Your task to perform on an android device: Show me popular videos on Youtube Image 0: 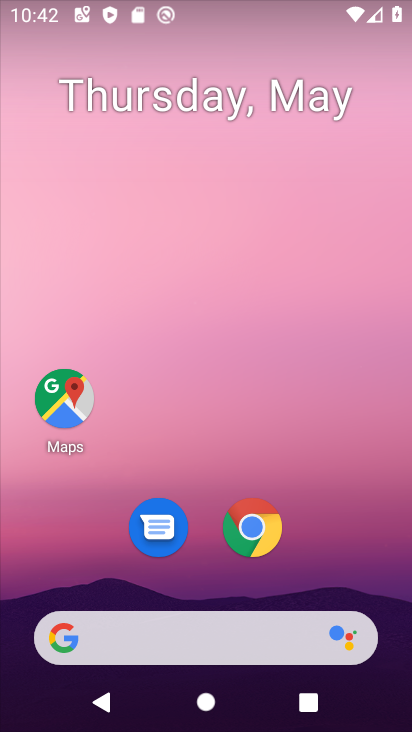
Step 0: drag from (324, 571) to (327, 146)
Your task to perform on an android device: Show me popular videos on Youtube Image 1: 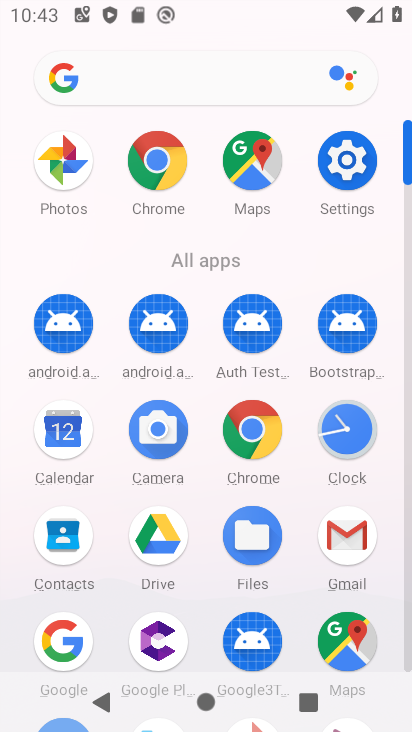
Step 1: drag from (202, 592) to (266, 155)
Your task to perform on an android device: Show me popular videos on Youtube Image 2: 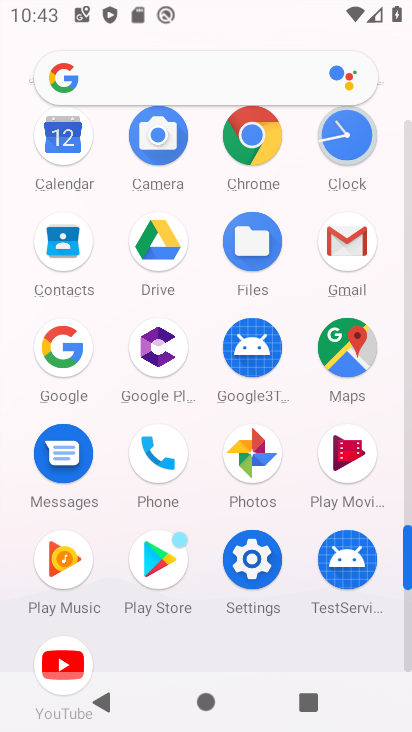
Step 2: click (75, 656)
Your task to perform on an android device: Show me popular videos on Youtube Image 3: 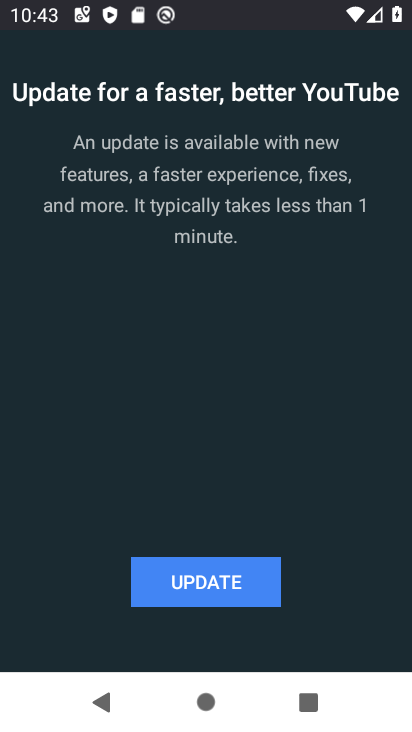
Step 3: click (177, 594)
Your task to perform on an android device: Show me popular videos on Youtube Image 4: 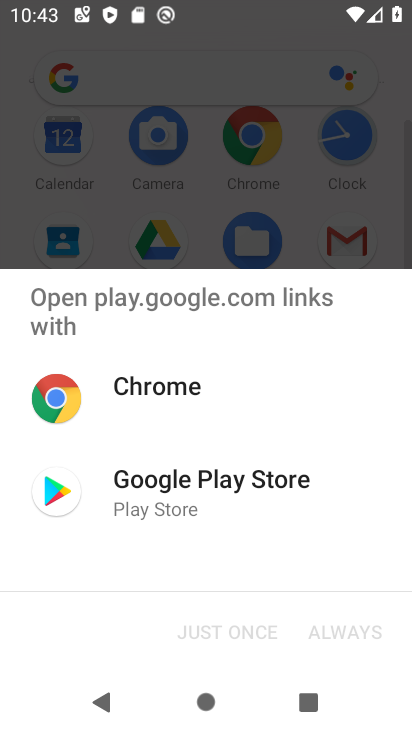
Step 4: click (179, 488)
Your task to perform on an android device: Show me popular videos on Youtube Image 5: 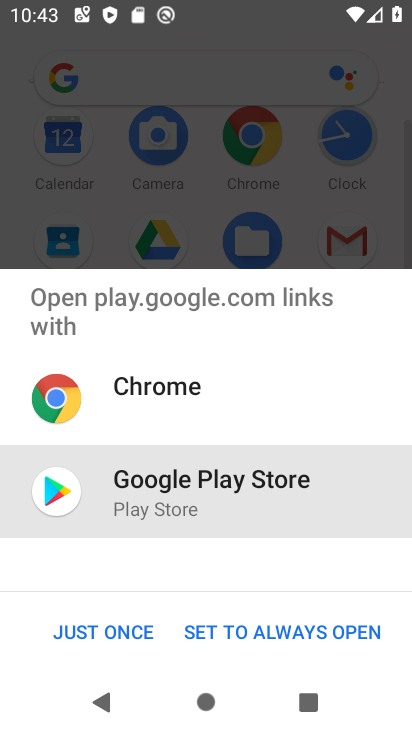
Step 5: click (126, 626)
Your task to perform on an android device: Show me popular videos on Youtube Image 6: 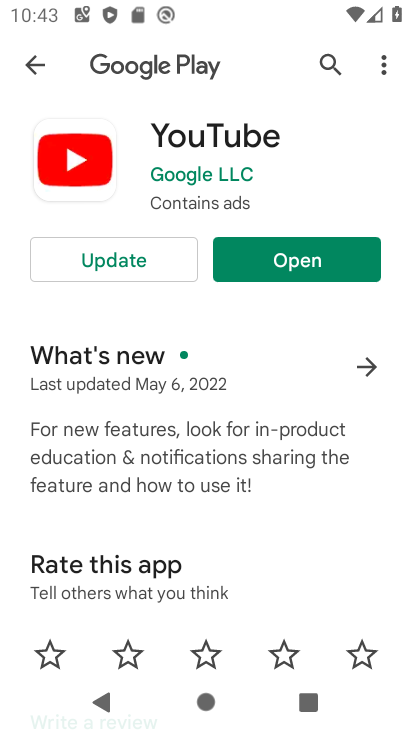
Step 6: click (162, 255)
Your task to perform on an android device: Show me popular videos on Youtube Image 7: 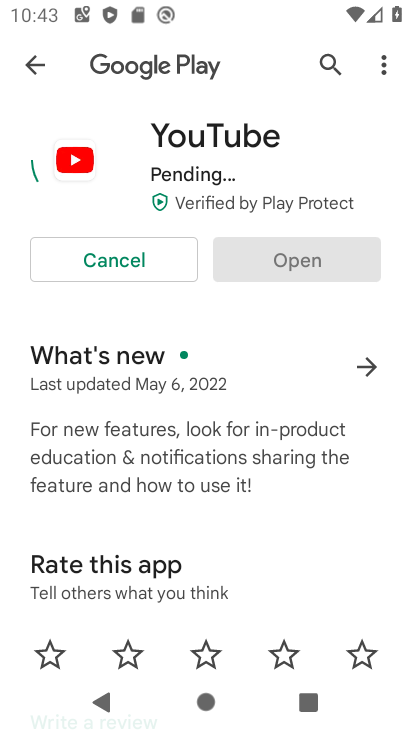
Step 7: task complete